Your task to perform on an android device: Go to notification settings Image 0: 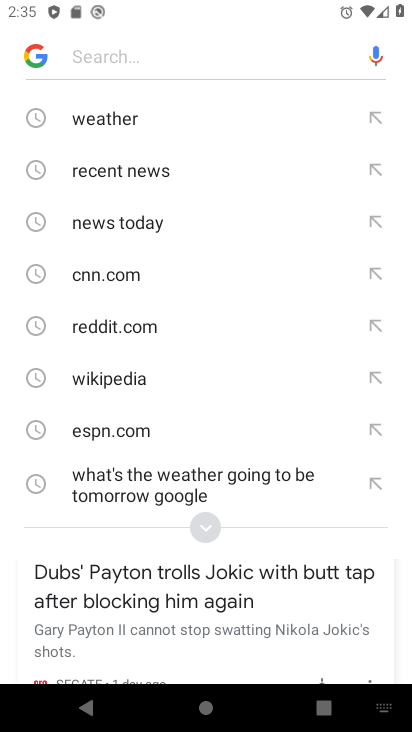
Step 0: press home button
Your task to perform on an android device: Go to notification settings Image 1: 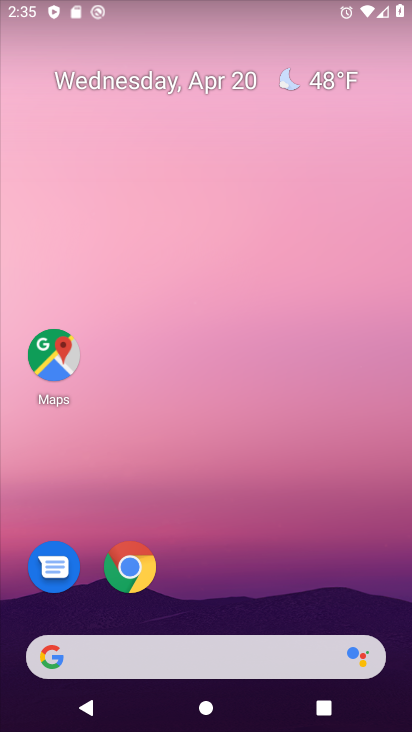
Step 1: drag from (200, 589) to (207, 198)
Your task to perform on an android device: Go to notification settings Image 2: 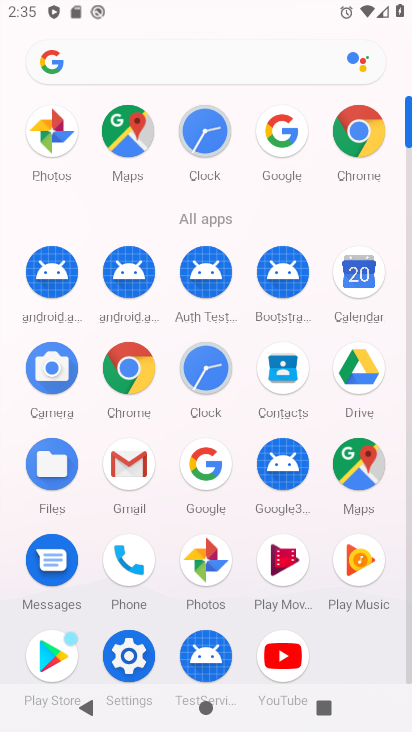
Step 2: click (129, 654)
Your task to perform on an android device: Go to notification settings Image 3: 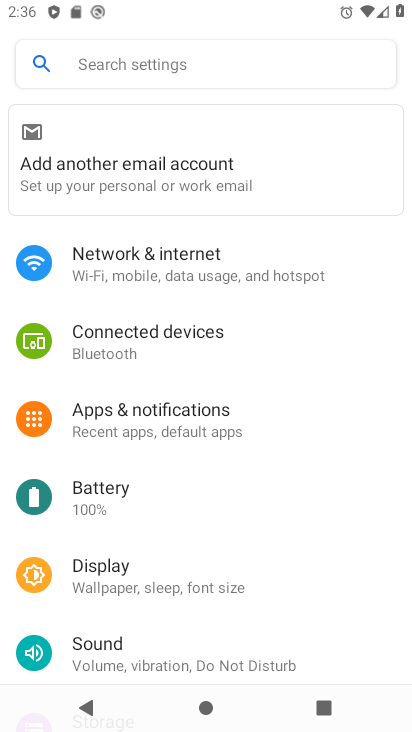
Step 3: click (139, 436)
Your task to perform on an android device: Go to notification settings Image 4: 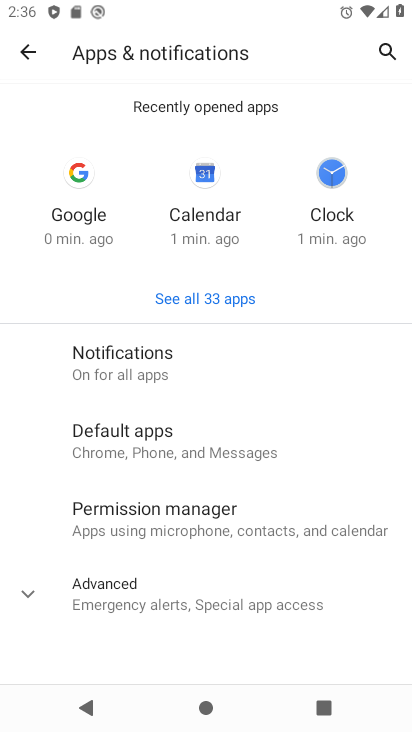
Step 4: click (184, 368)
Your task to perform on an android device: Go to notification settings Image 5: 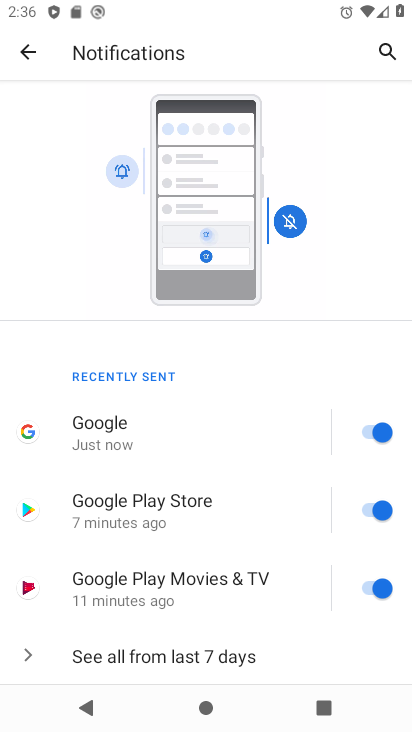
Step 5: drag from (217, 596) to (228, 171)
Your task to perform on an android device: Go to notification settings Image 6: 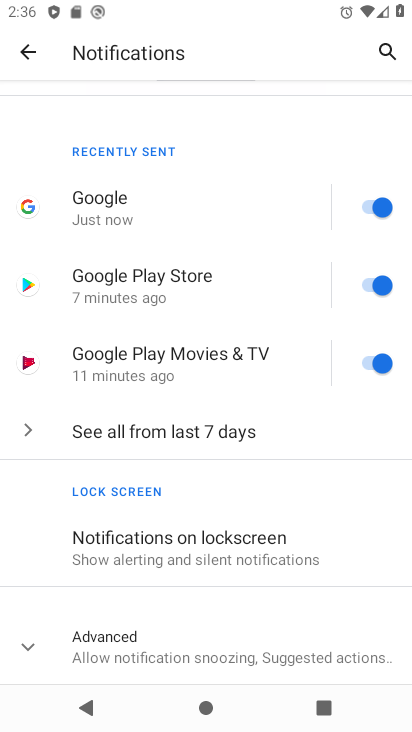
Step 6: drag from (158, 592) to (168, 195)
Your task to perform on an android device: Go to notification settings Image 7: 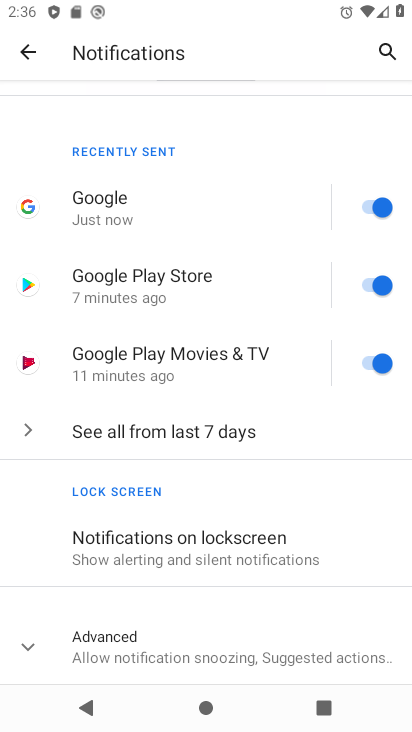
Step 7: click (136, 643)
Your task to perform on an android device: Go to notification settings Image 8: 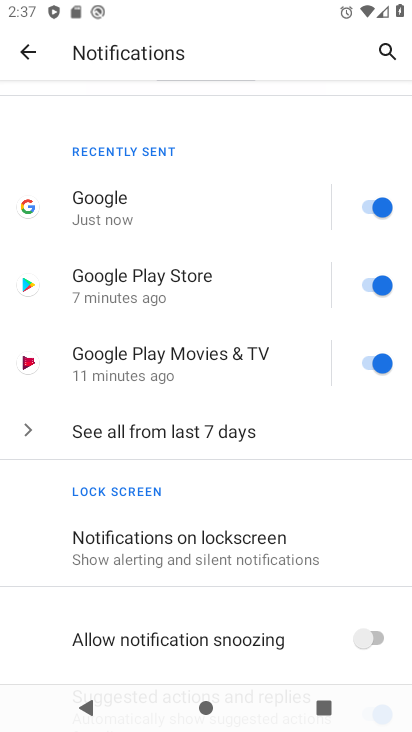
Step 8: task complete